Your task to perform on an android device: set an alarm Image 0: 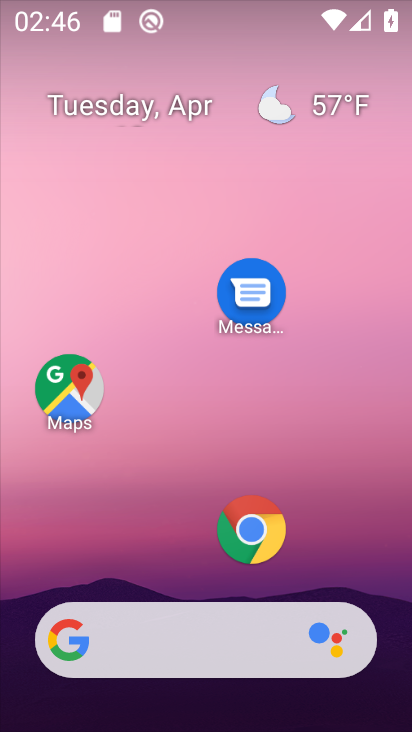
Step 0: drag from (159, 477) to (131, 128)
Your task to perform on an android device: set an alarm Image 1: 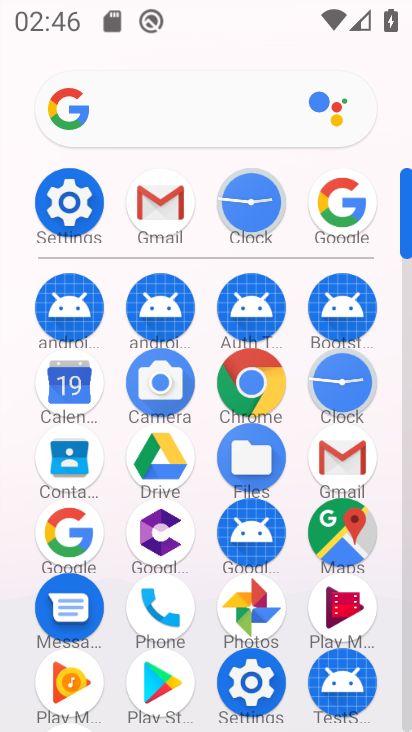
Step 1: click (341, 383)
Your task to perform on an android device: set an alarm Image 2: 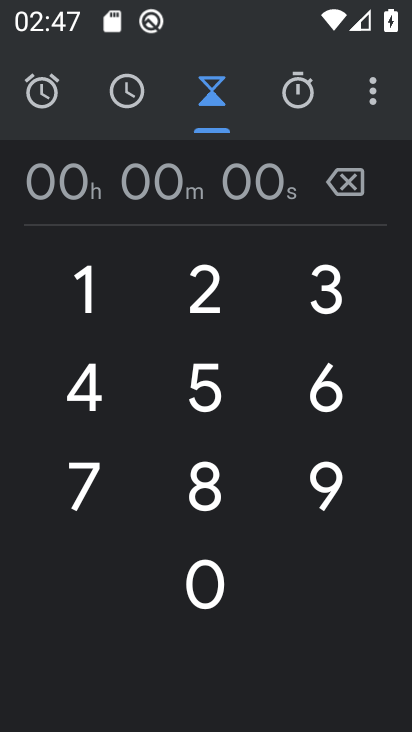
Step 2: click (54, 94)
Your task to perform on an android device: set an alarm Image 3: 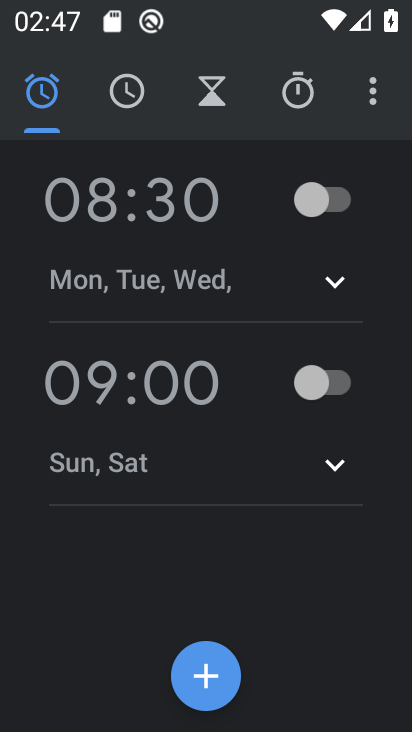
Step 3: task complete